Your task to perform on an android device: Open Google Chrome Image 0: 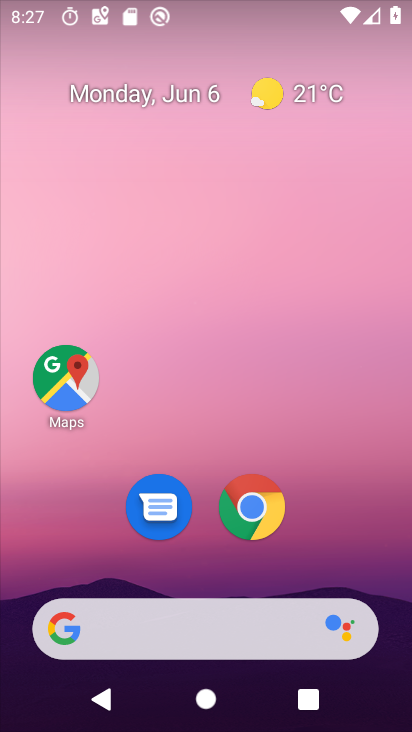
Step 0: press home button
Your task to perform on an android device: Open Google Chrome Image 1: 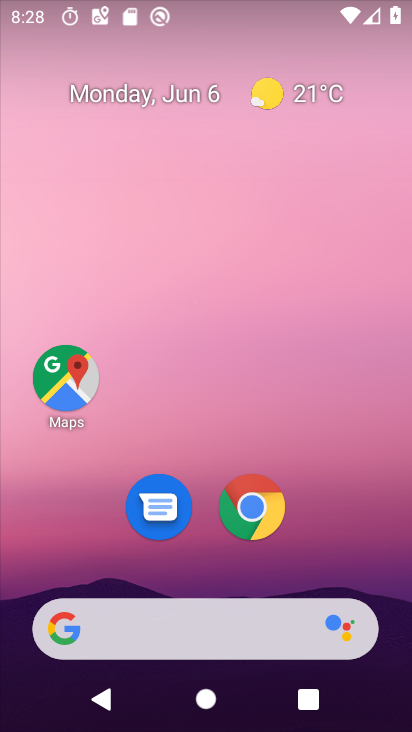
Step 1: click (251, 490)
Your task to perform on an android device: Open Google Chrome Image 2: 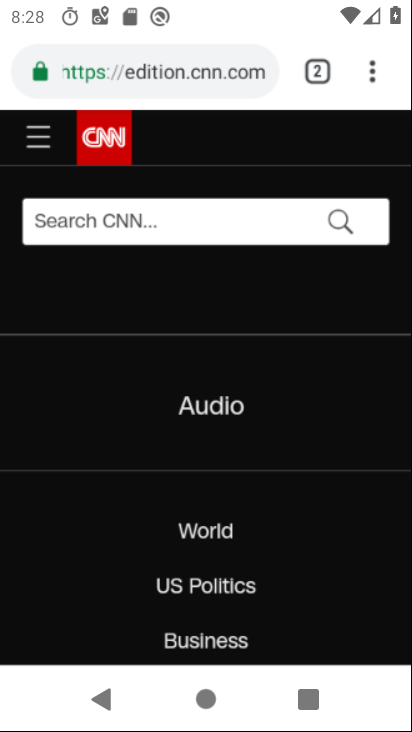
Step 2: task complete